Your task to perform on an android device: open app "Firefox Browser" Image 0: 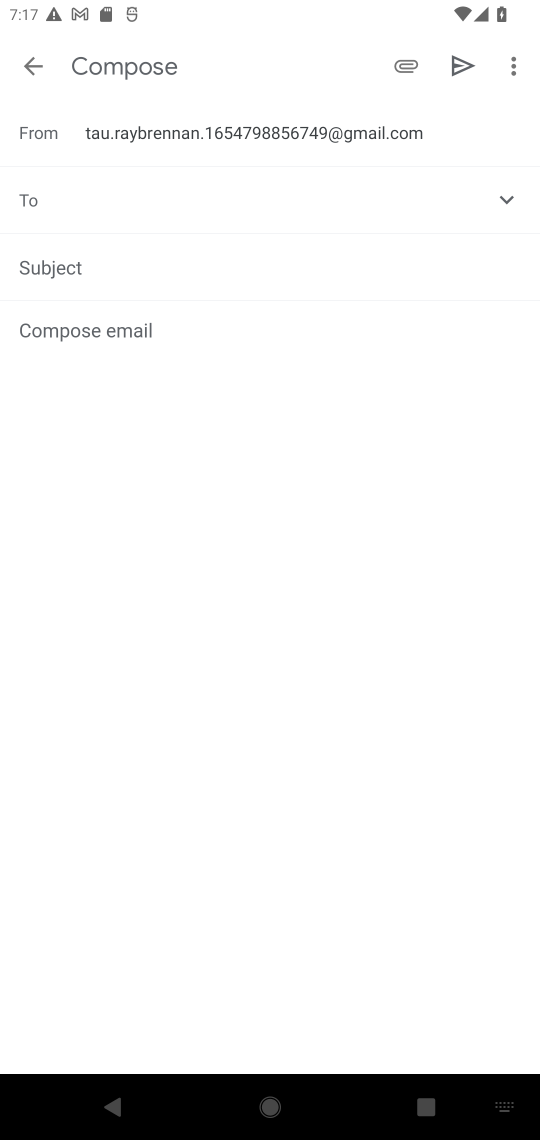
Step 0: press home button
Your task to perform on an android device: open app "Firefox Browser" Image 1: 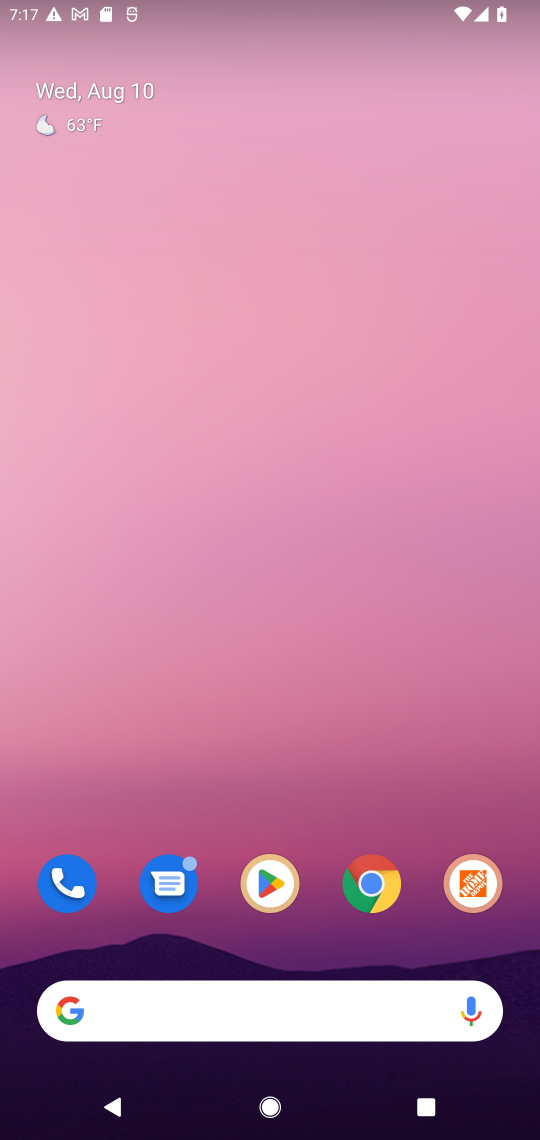
Step 1: click (256, 912)
Your task to perform on an android device: open app "Firefox Browser" Image 2: 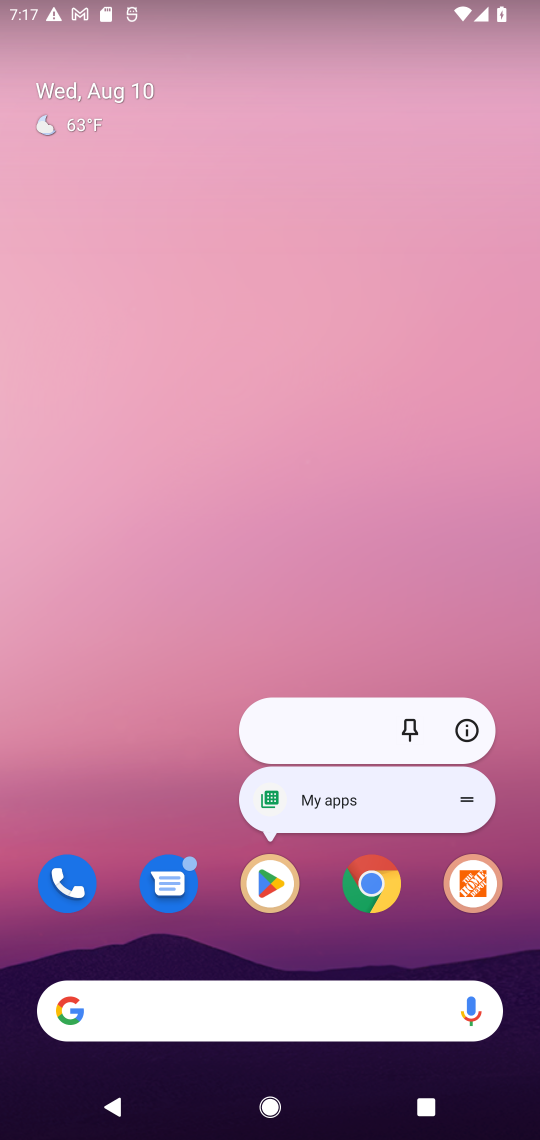
Step 2: click (276, 899)
Your task to perform on an android device: open app "Firefox Browser" Image 3: 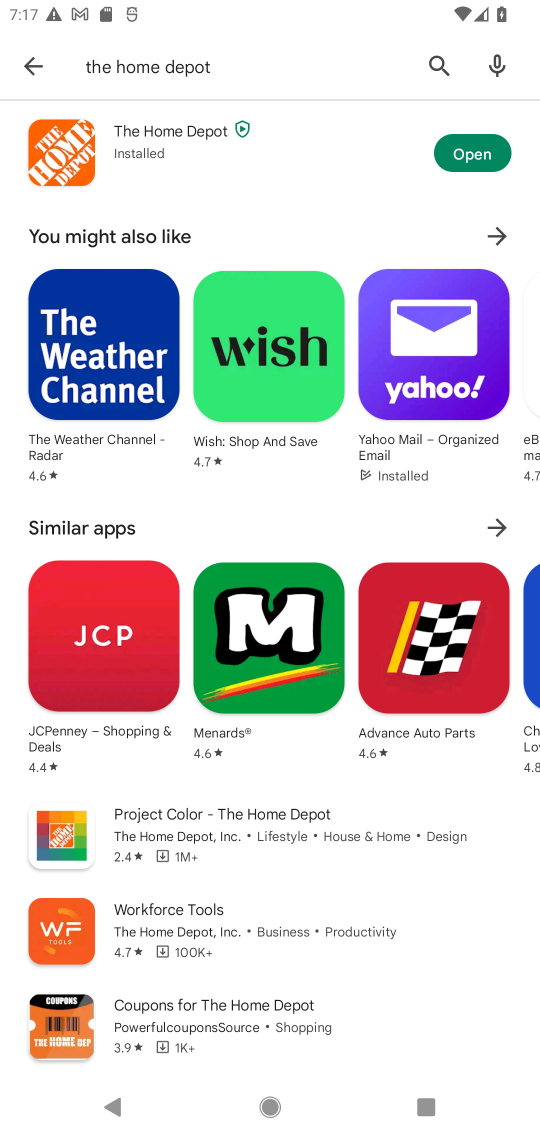
Step 3: click (438, 55)
Your task to perform on an android device: open app "Firefox Browser" Image 4: 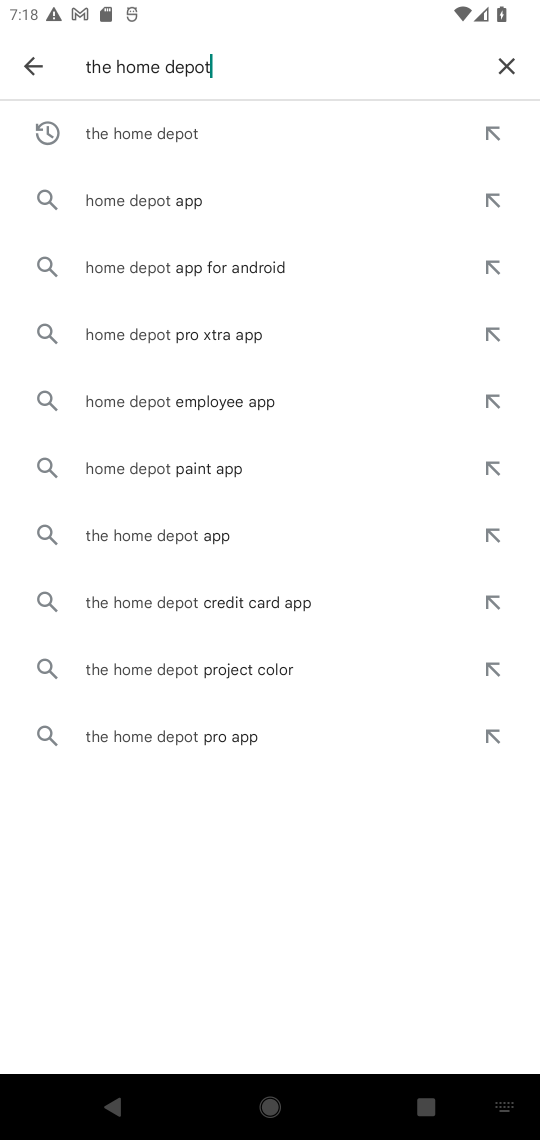
Step 4: click (505, 75)
Your task to perform on an android device: open app "Firefox Browser" Image 5: 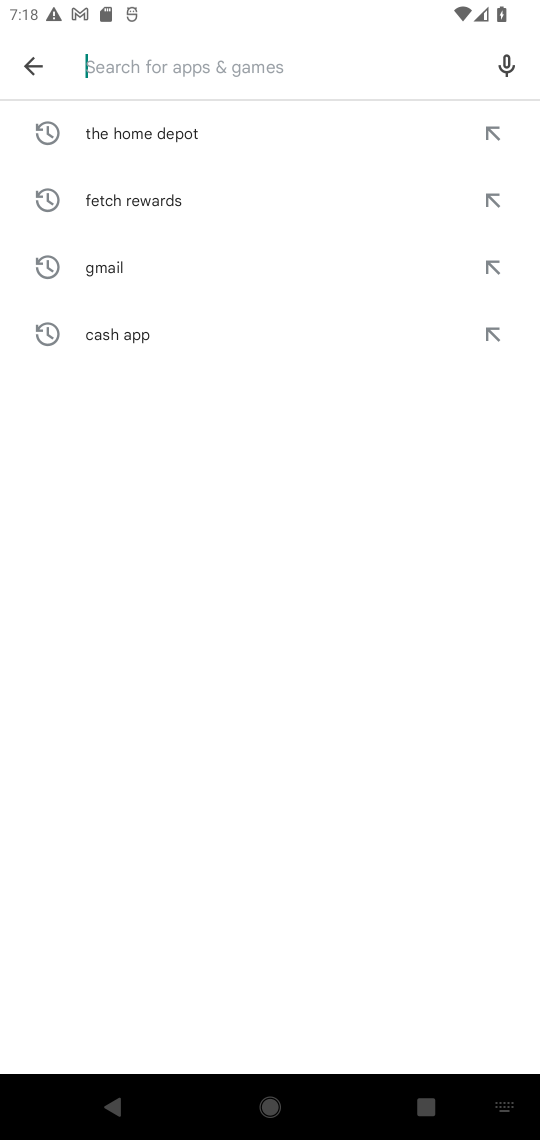
Step 5: type "Firefox Browser"
Your task to perform on an android device: open app "Firefox Browser" Image 6: 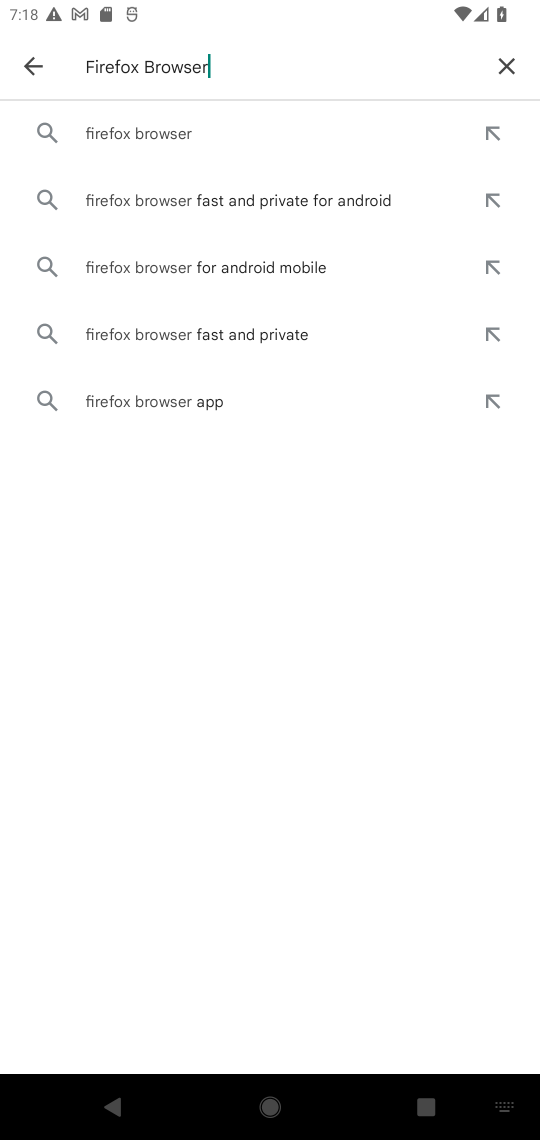
Step 6: click (250, 126)
Your task to perform on an android device: open app "Firefox Browser" Image 7: 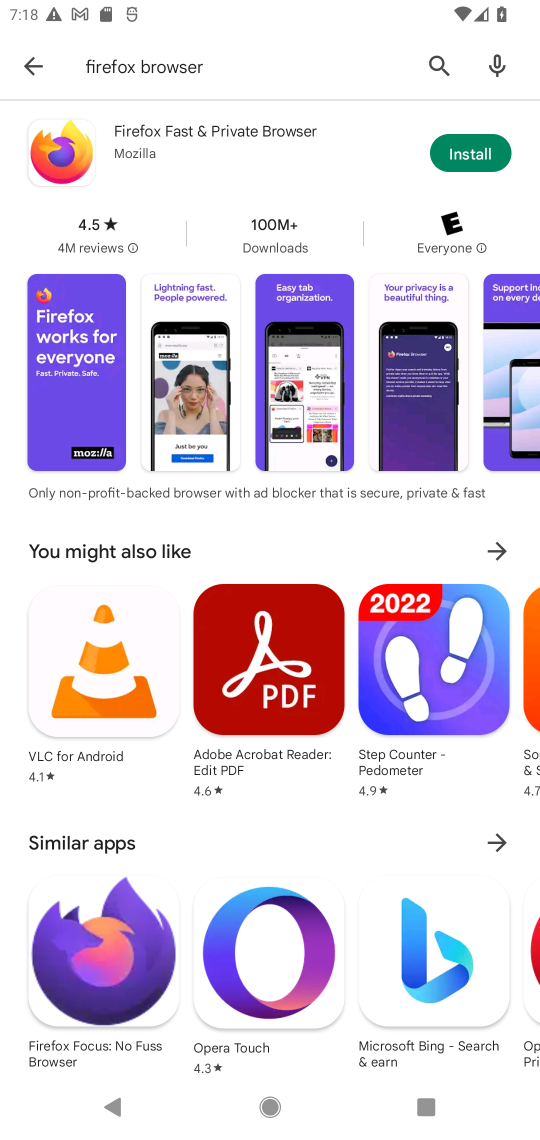
Step 7: task complete